Your task to perform on an android device: Open Google Chrome and click the shortcut for Amazon.com Image 0: 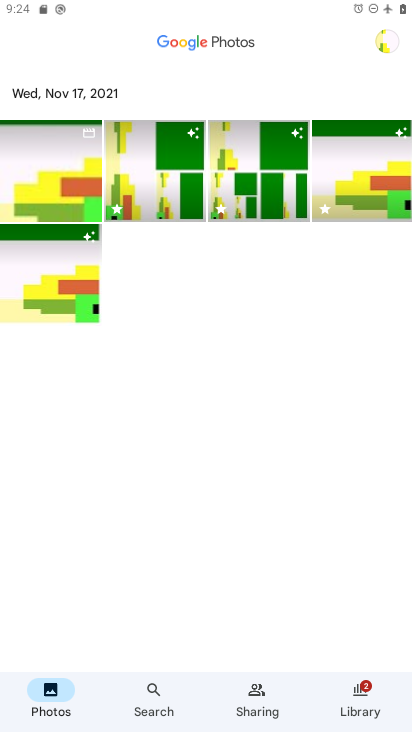
Step 0: press home button
Your task to perform on an android device: Open Google Chrome and click the shortcut for Amazon.com Image 1: 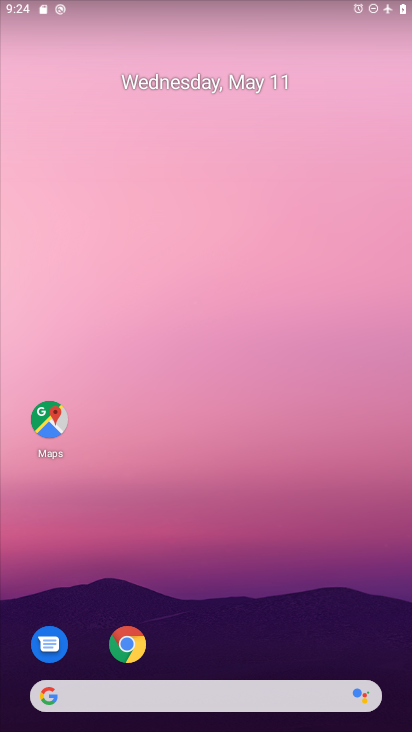
Step 1: click (134, 648)
Your task to perform on an android device: Open Google Chrome and click the shortcut for Amazon.com Image 2: 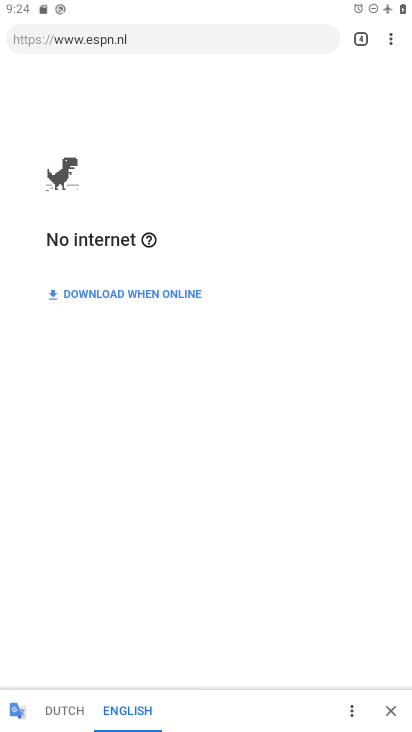
Step 2: click (391, 36)
Your task to perform on an android device: Open Google Chrome and click the shortcut for Amazon.com Image 3: 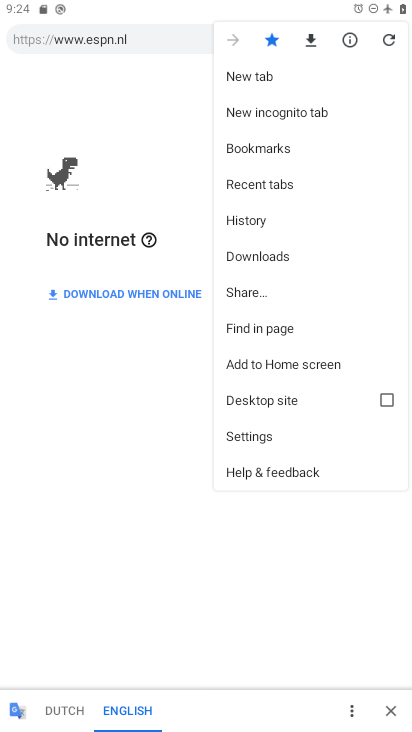
Step 3: click (256, 71)
Your task to perform on an android device: Open Google Chrome and click the shortcut for Amazon.com Image 4: 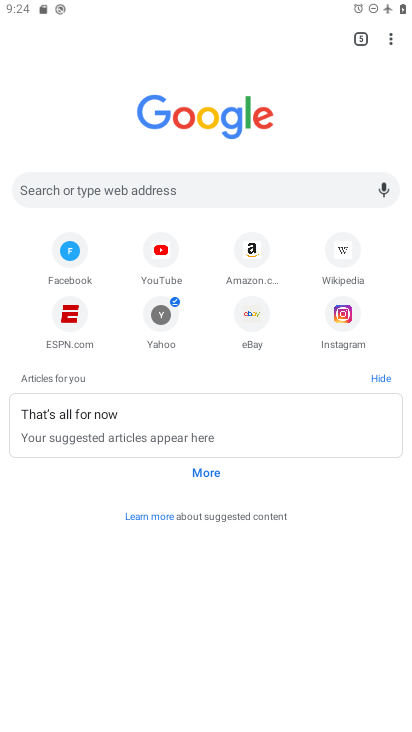
Step 4: click (245, 240)
Your task to perform on an android device: Open Google Chrome and click the shortcut for Amazon.com Image 5: 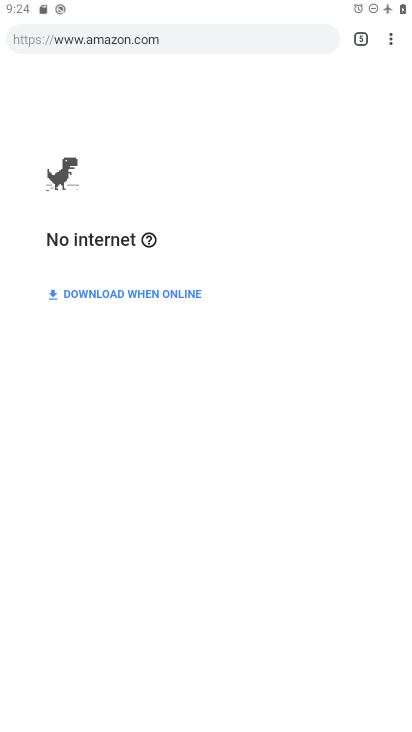
Step 5: task complete